Your task to perform on an android device: turn pop-ups on in chrome Image 0: 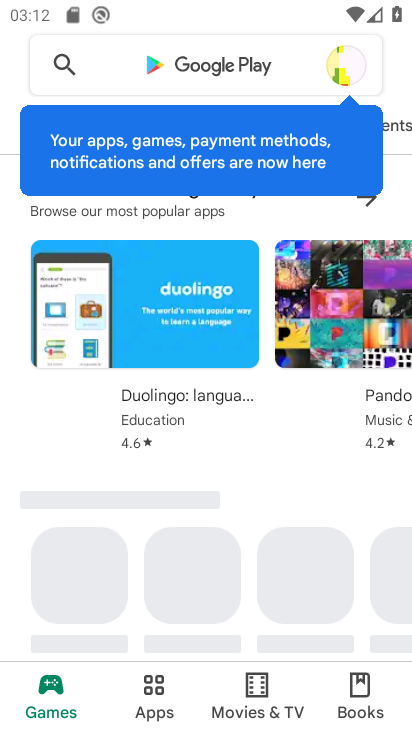
Step 0: press home button
Your task to perform on an android device: turn pop-ups on in chrome Image 1: 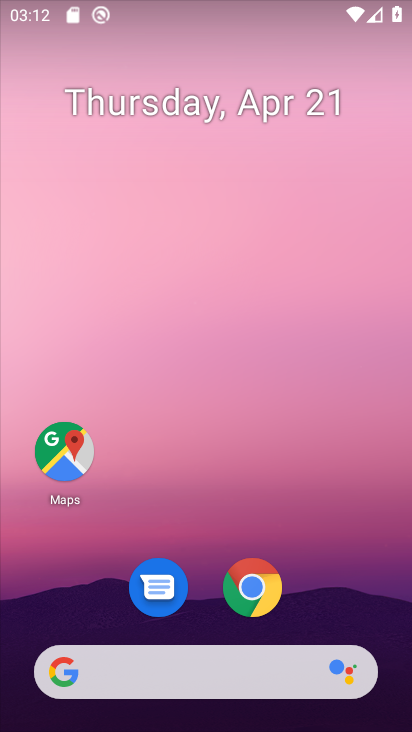
Step 1: drag from (352, 594) to (338, 116)
Your task to perform on an android device: turn pop-ups on in chrome Image 2: 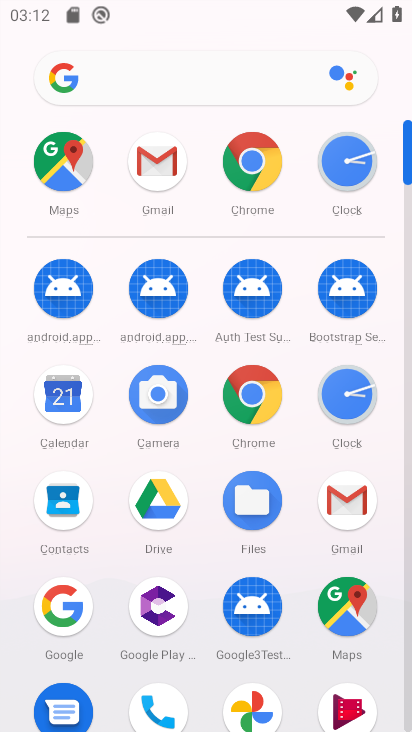
Step 2: click (258, 405)
Your task to perform on an android device: turn pop-ups on in chrome Image 3: 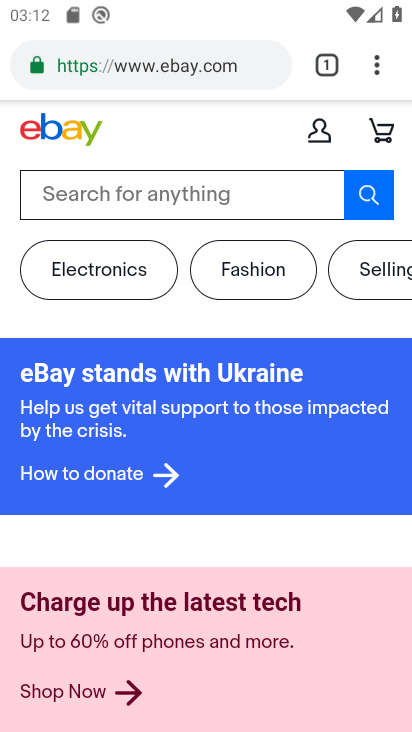
Step 3: click (377, 68)
Your task to perform on an android device: turn pop-ups on in chrome Image 4: 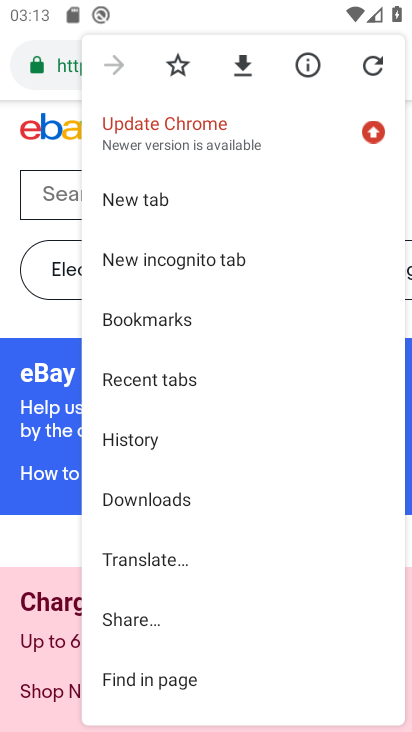
Step 4: drag from (319, 553) to (335, 407)
Your task to perform on an android device: turn pop-ups on in chrome Image 5: 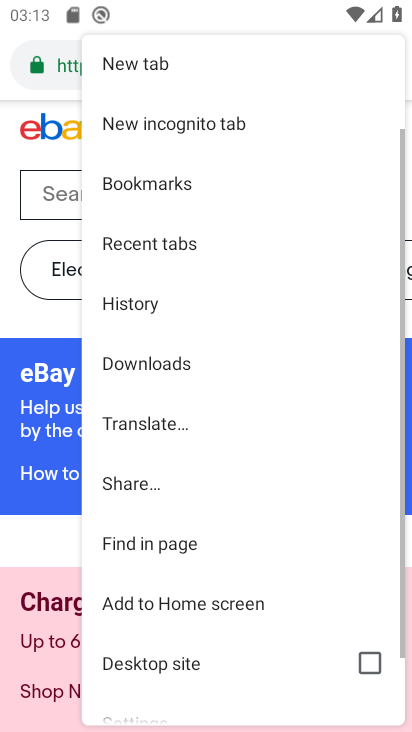
Step 5: drag from (320, 552) to (315, 401)
Your task to perform on an android device: turn pop-ups on in chrome Image 6: 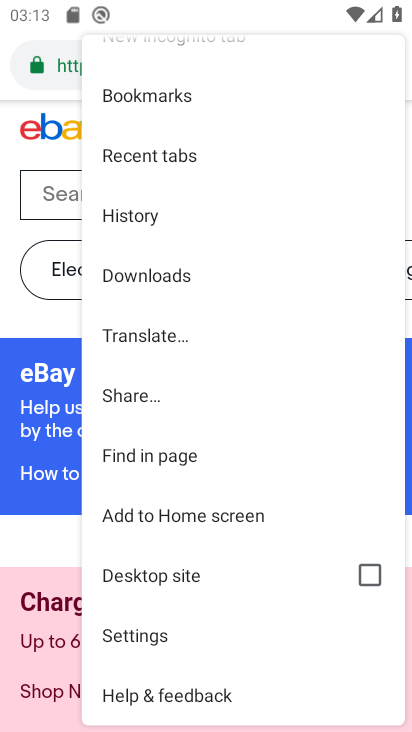
Step 6: click (137, 640)
Your task to perform on an android device: turn pop-ups on in chrome Image 7: 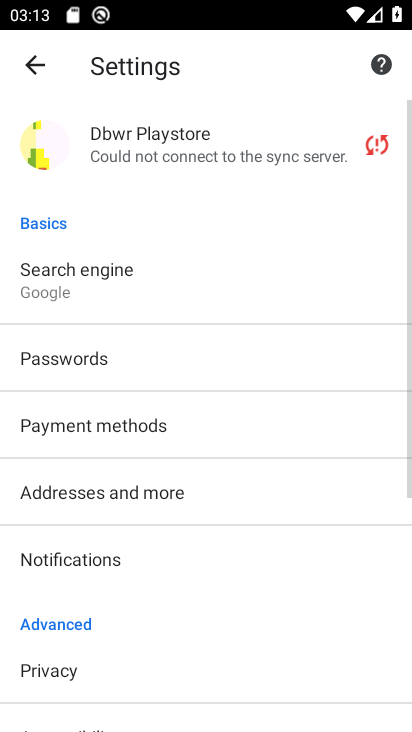
Step 7: drag from (276, 611) to (275, 490)
Your task to perform on an android device: turn pop-ups on in chrome Image 8: 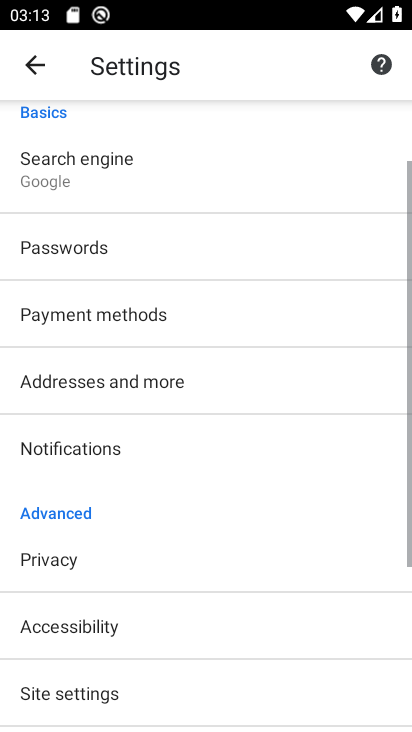
Step 8: drag from (289, 578) to (294, 454)
Your task to perform on an android device: turn pop-ups on in chrome Image 9: 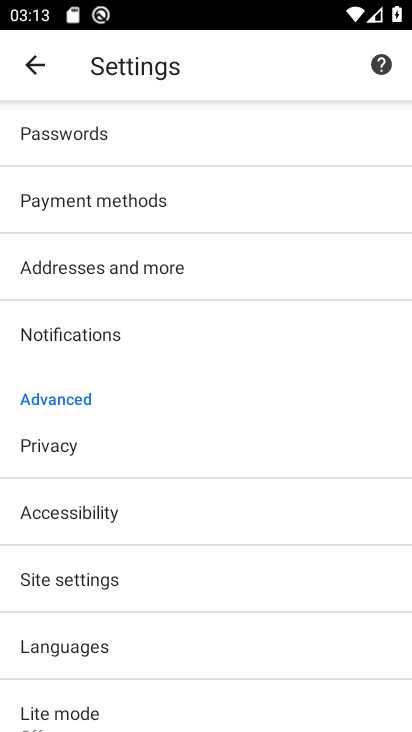
Step 9: drag from (298, 580) to (304, 450)
Your task to perform on an android device: turn pop-ups on in chrome Image 10: 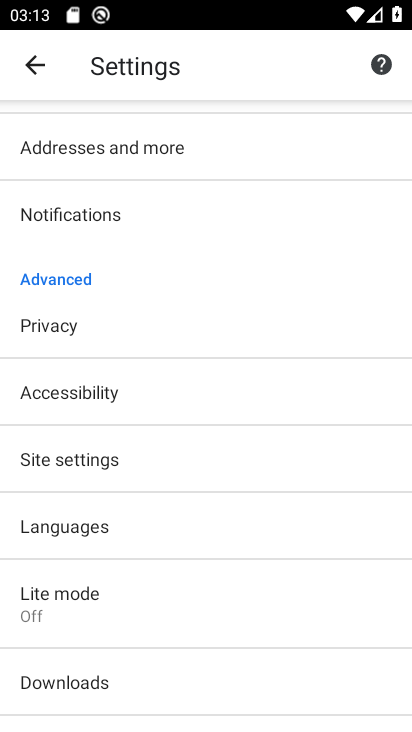
Step 10: drag from (323, 541) to (334, 411)
Your task to perform on an android device: turn pop-ups on in chrome Image 11: 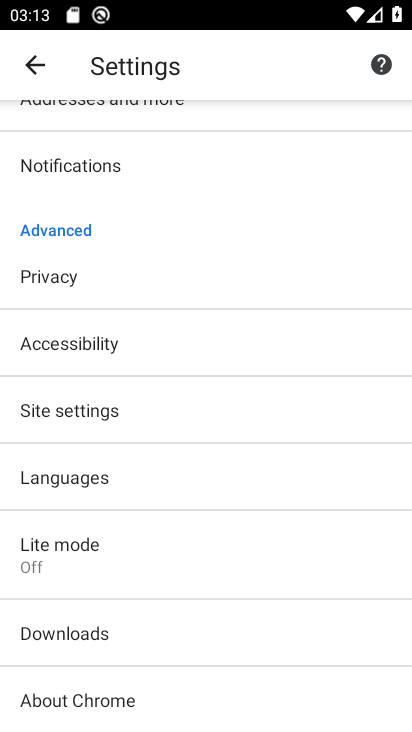
Step 11: drag from (319, 552) to (317, 419)
Your task to perform on an android device: turn pop-ups on in chrome Image 12: 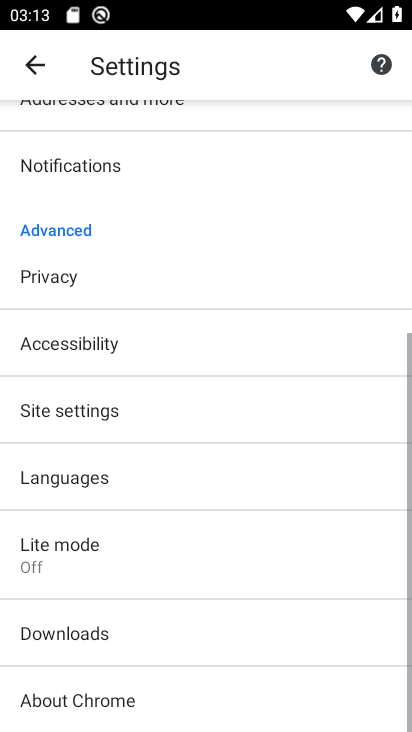
Step 12: click (315, 410)
Your task to perform on an android device: turn pop-ups on in chrome Image 13: 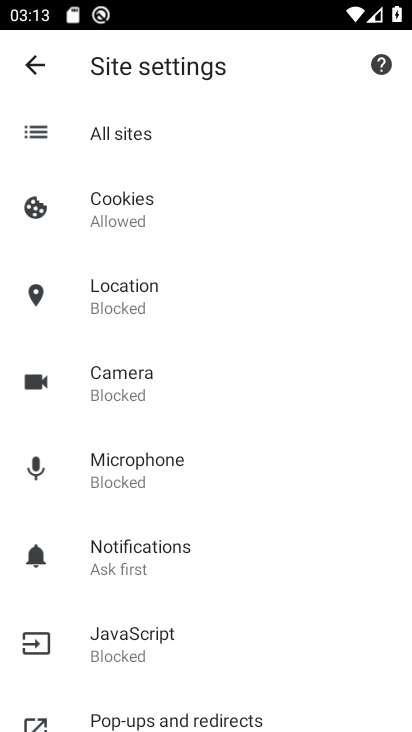
Step 13: drag from (297, 565) to (297, 432)
Your task to perform on an android device: turn pop-ups on in chrome Image 14: 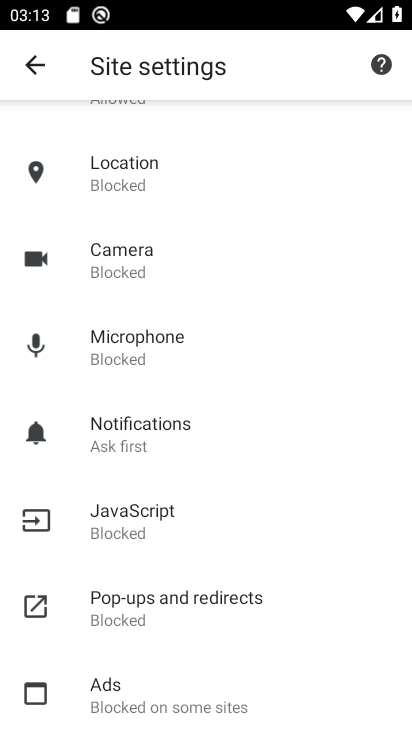
Step 14: drag from (338, 606) to (333, 445)
Your task to perform on an android device: turn pop-ups on in chrome Image 15: 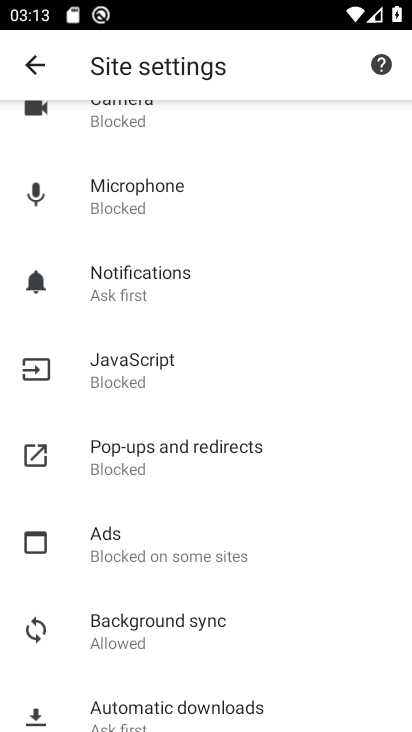
Step 15: drag from (321, 586) to (327, 433)
Your task to perform on an android device: turn pop-ups on in chrome Image 16: 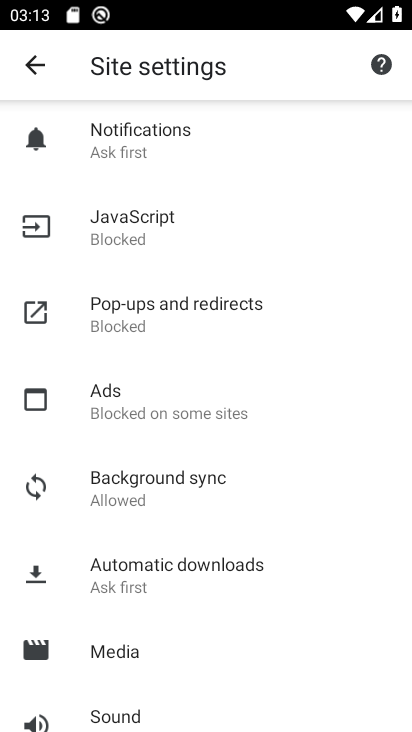
Step 16: drag from (345, 555) to (205, 314)
Your task to perform on an android device: turn pop-ups on in chrome Image 17: 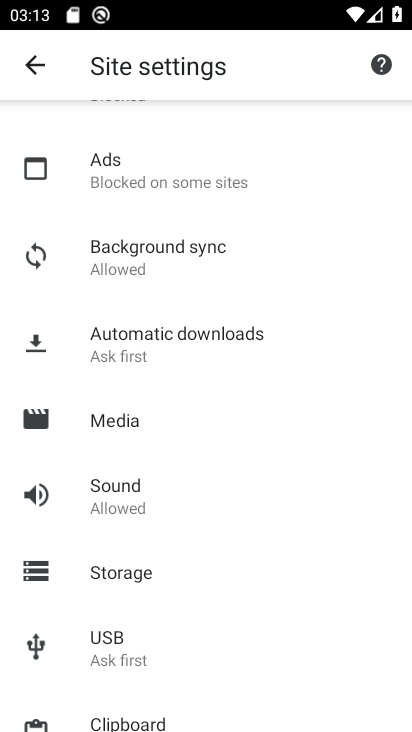
Step 17: drag from (290, 538) to (325, 333)
Your task to perform on an android device: turn pop-ups on in chrome Image 18: 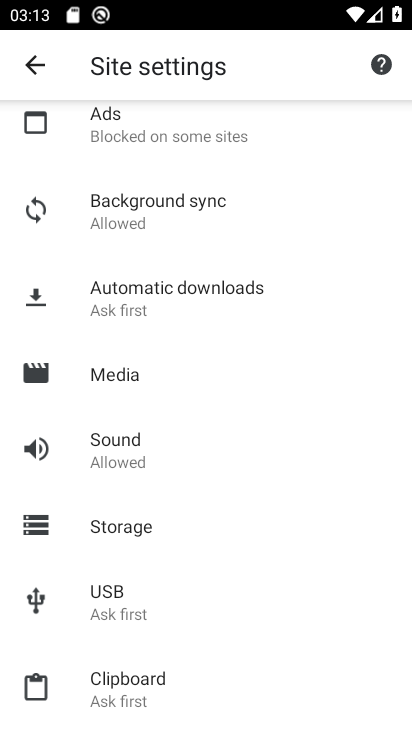
Step 18: drag from (326, 252) to (326, 451)
Your task to perform on an android device: turn pop-ups on in chrome Image 19: 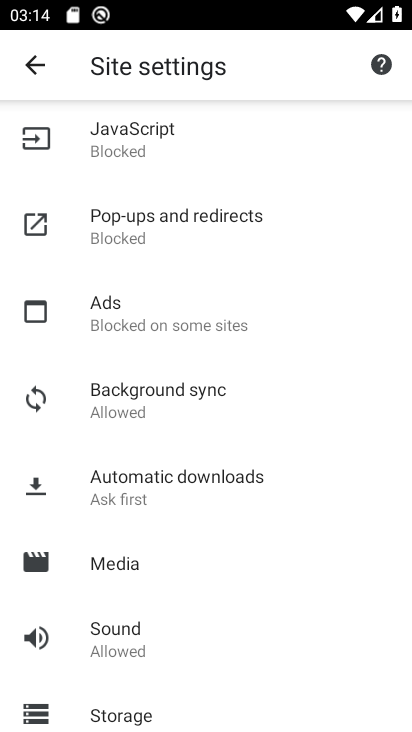
Step 19: click (206, 228)
Your task to perform on an android device: turn pop-ups on in chrome Image 20: 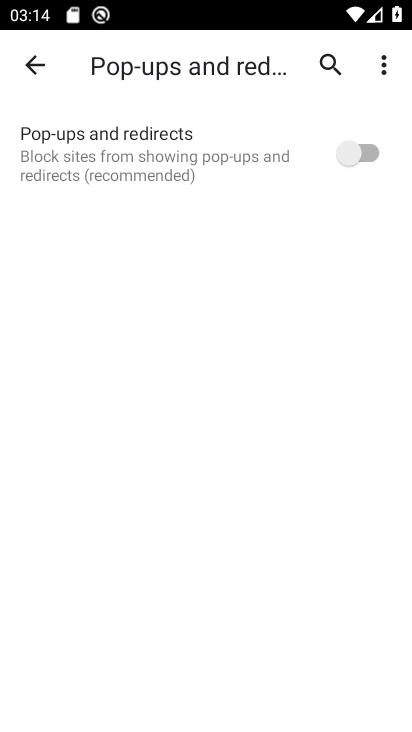
Step 20: click (347, 147)
Your task to perform on an android device: turn pop-ups on in chrome Image 21: 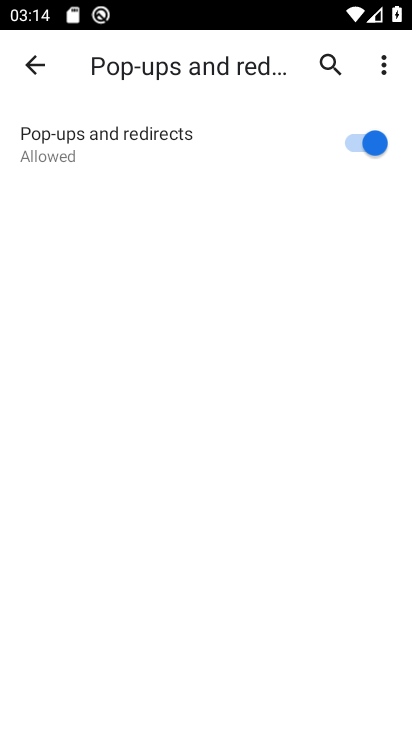
Step 21: task complete